Your task to perform on an android device: turn off location Image 0: 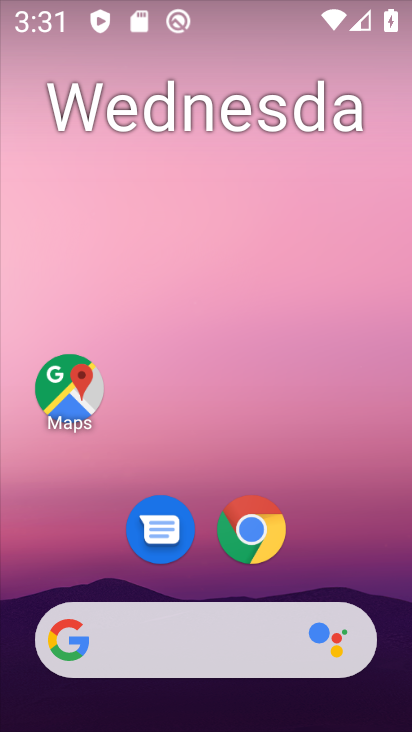
Step 0: drag from (90, 580) to (227, 122)
Your task to perform on an android device: turn off location Image 1: 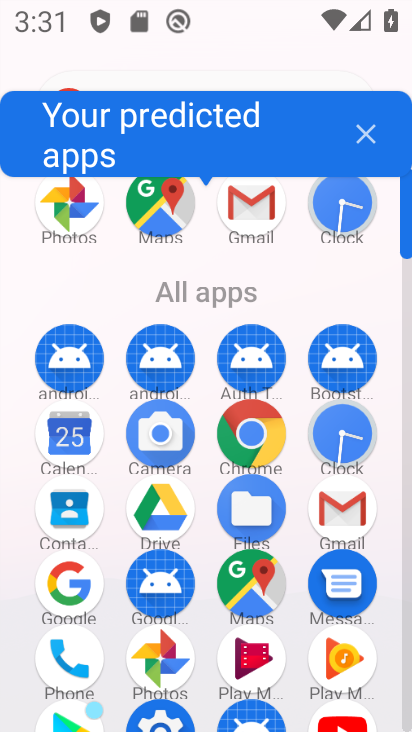
Step 1: drag from (156, 688) to (236, 419)
Your task to perform on an android device: turn off location Image 2: 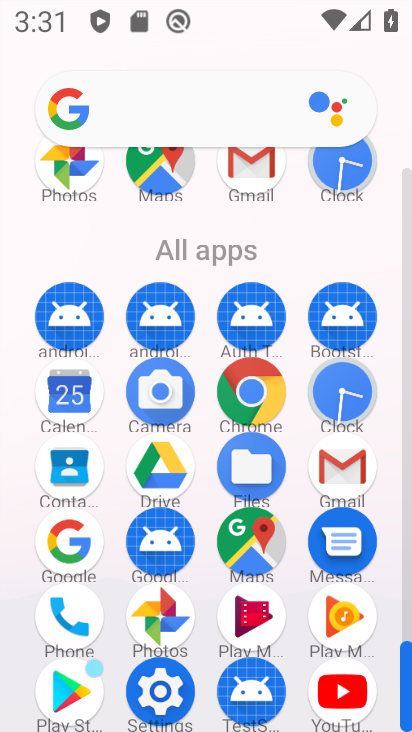
Step 2: click (167, 692)
Your task to perform on an android device: turn off location Image 3: 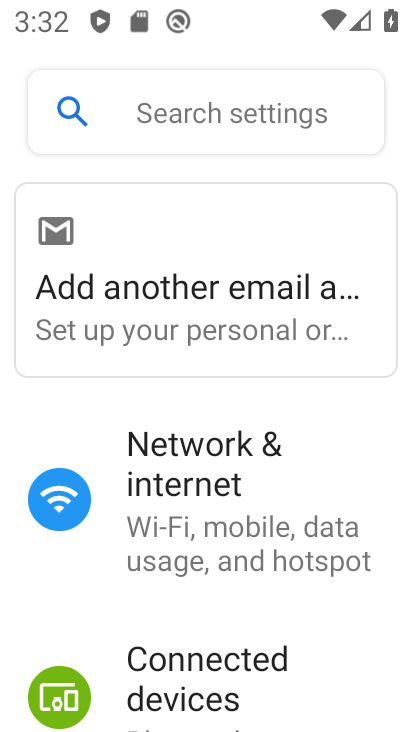
Step 3: drag from (210, 626) to (380, 149)
Your task to perform on an android device: turn off location Image 4: 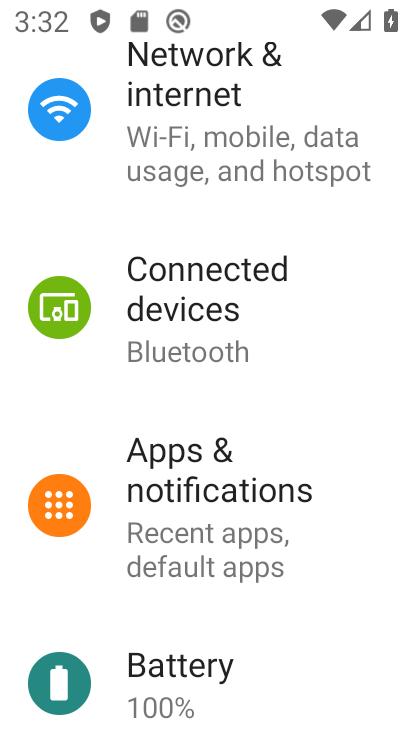
Step 4: drag from (164, 650) to (300, 190)
Your task to perform on an android device: turn off location Image 5: 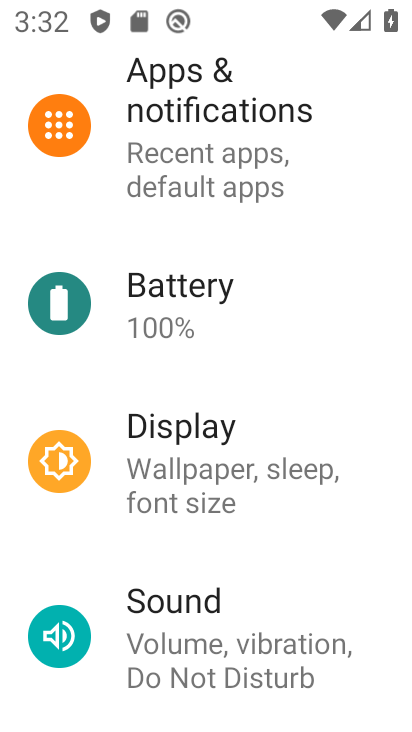
Step 5: drag from (125, 615) to (219, 299)
Your task to perform on an android device: turn off location Image 6: 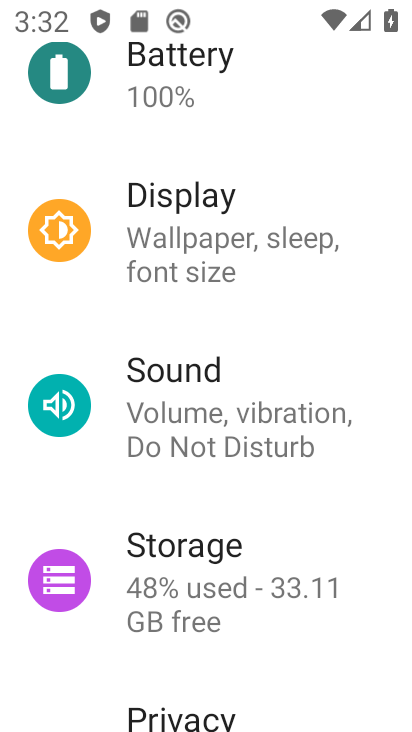
Step 6: drag from (181, 603) to (292, 250)
Your task to perform on an android device: turn off location Image 7: 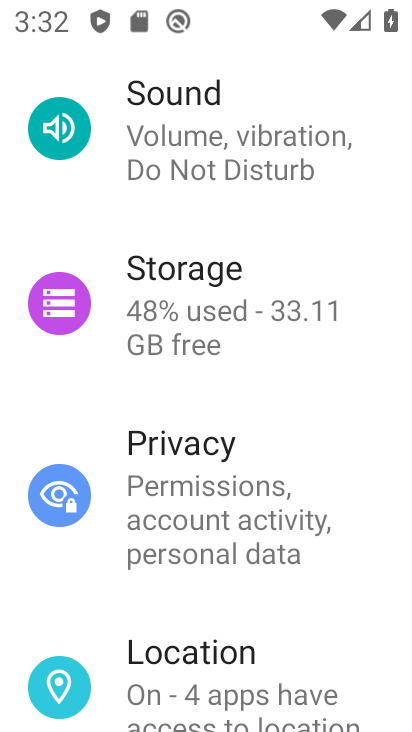
Step 7: click (180, 659)
Your task to perform on an android device: turn off location Image 8: 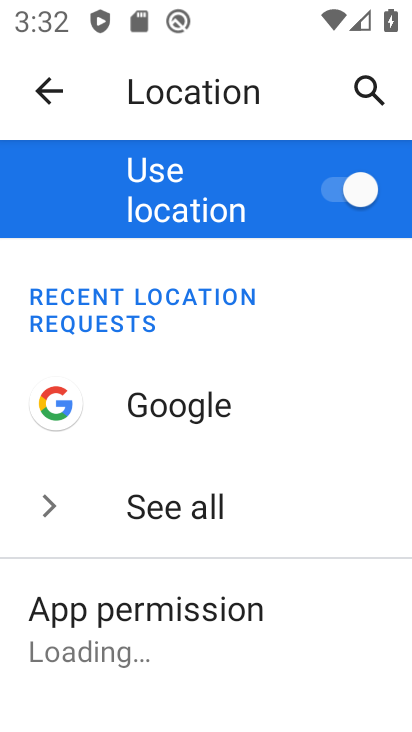
Step 8: click (333, 183)
Your task to perform on an android device: turn off location Image 9: 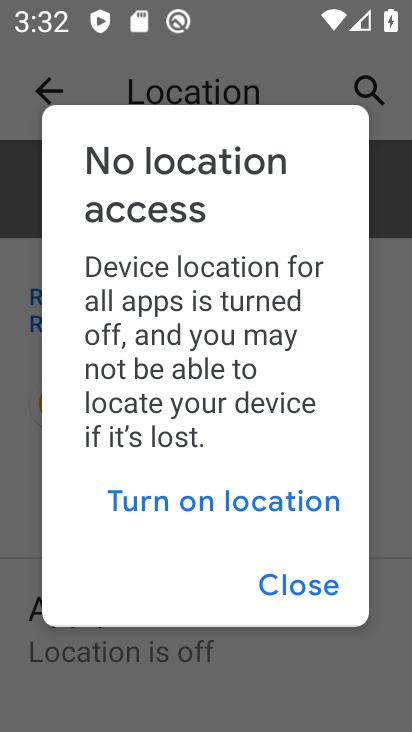
Step 9: click (301, 597)
Your task to perform on an android device: turn off location Image 10: 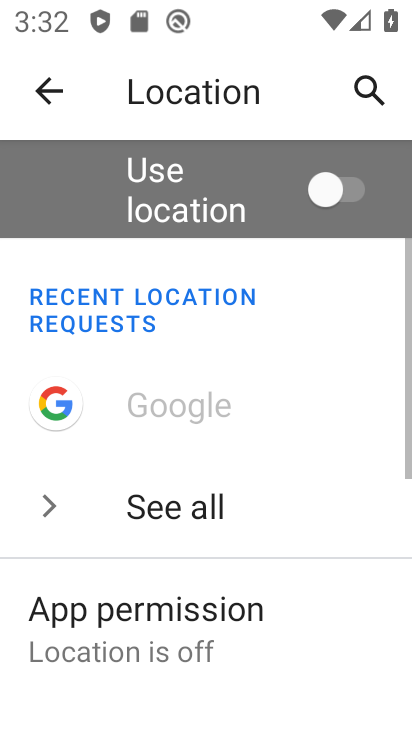
Step 10: task complete